Your task to perform on an android device: Go to display settings Image 0: 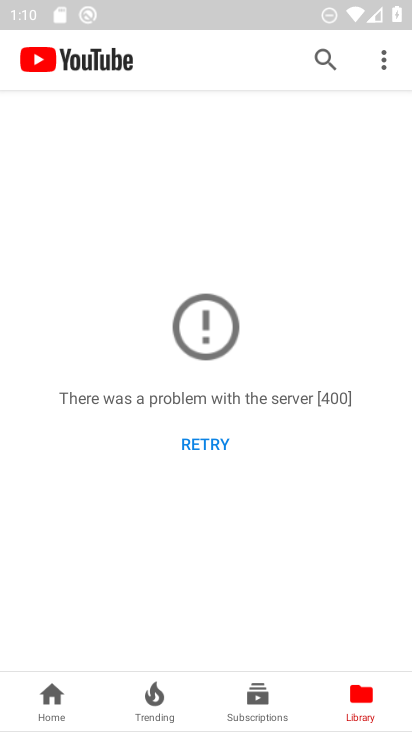
Step 0: press back button
Your task to perform on an android device: Go to display settings Image 1: 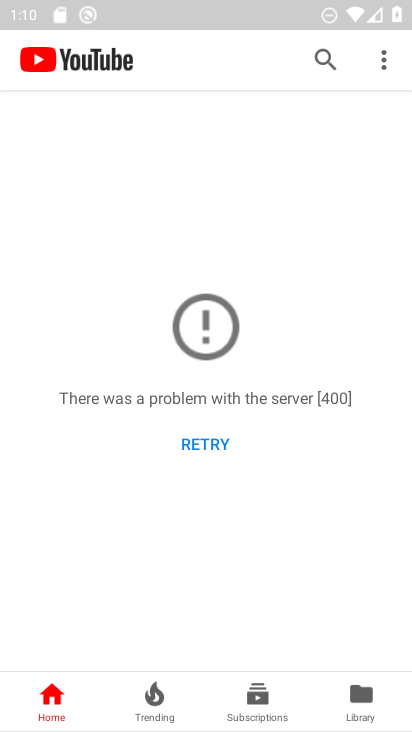
Step 1: press home button
Your task to perform on an android device: Go to display settings Image 2: 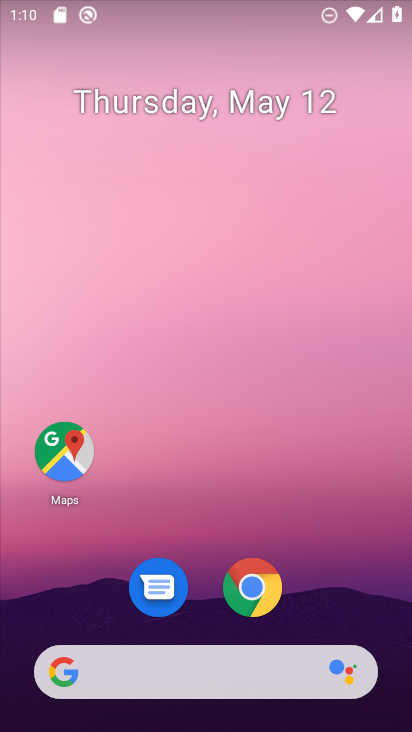
Step 2: drag from (332, 580) to (256, 52)
Your task to perform on an android device: Go to display settings Image 3: 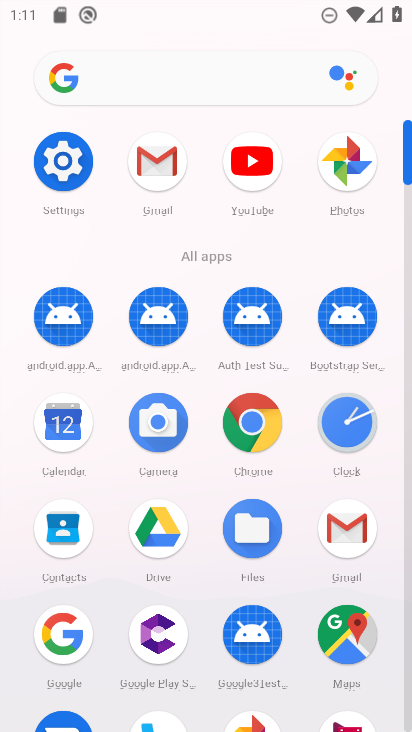
Step 3: click (62, 158)
Your task to perform on an android device: Go to display settings Image 4: 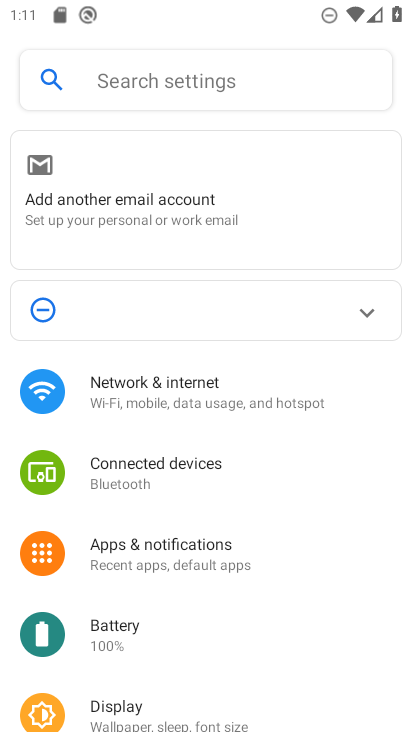
Step 4: drag from (161, 597) to (233, 438)
Your task to perform on an android device: Go to display settings Image 5: 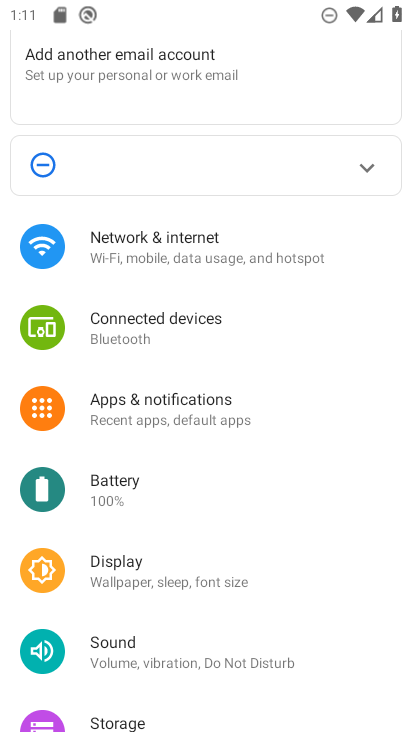
Step 5: click (127, 568)
Your task to perform on an android device: Go to display settings Image 6: 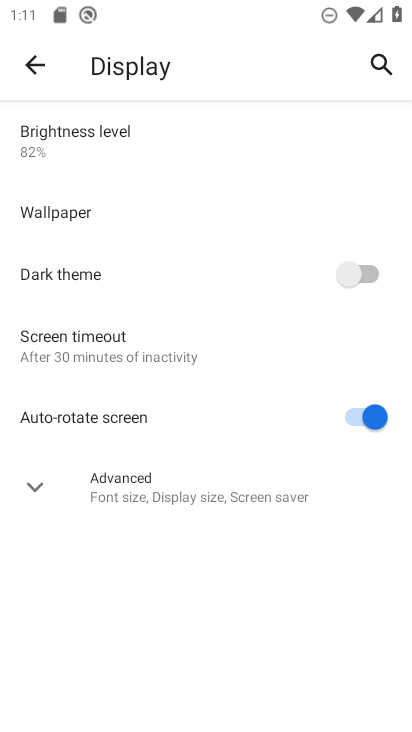
Step 6: task complete